Your task to perform on an android device: Set the phone to "Do not disturb". Image 0: 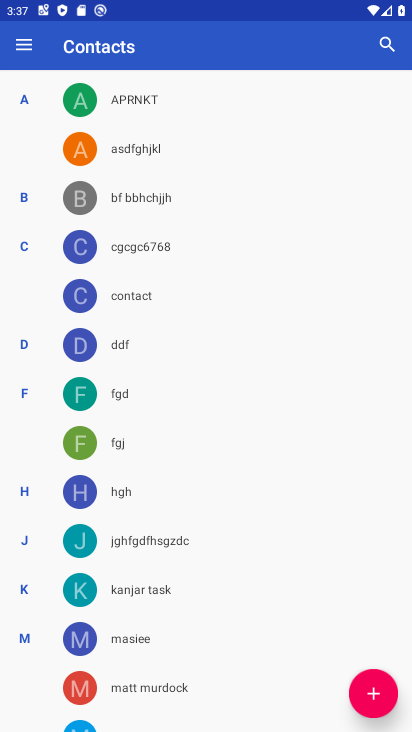
Step 0: press home button
Your task to perform on an android device: Set the phone to "Do not disturb". Image 1: 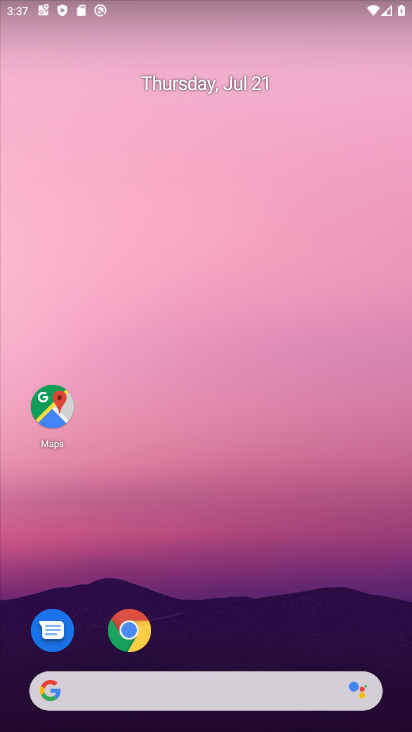
Step 1: drag from (209, 2) to (163, 685)
Your task to perform on an android device: Set the phone to "Do not disturb". Image 2: 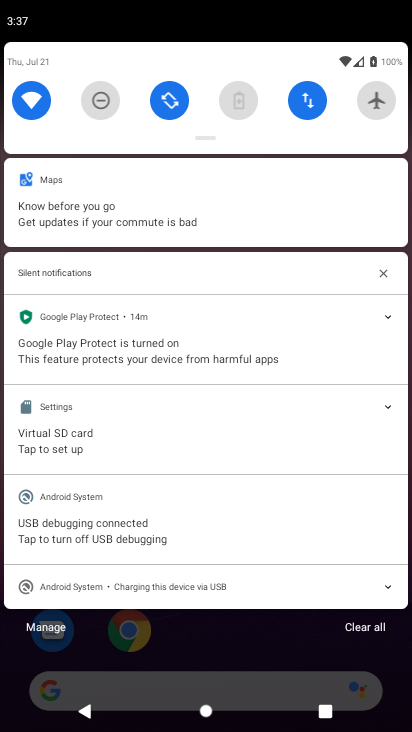
Step 2: click (104, 102)
Your task to perform on an android device: Set the phone to "Do not disturb". Image 3: 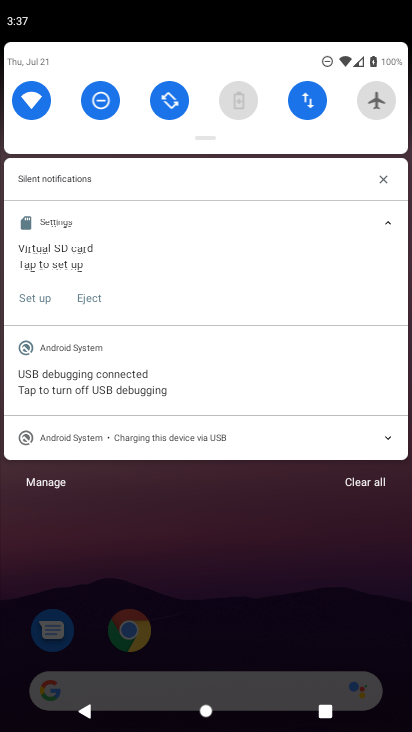
Step 3: task complete